Your task to perform on an android device: Look up the best rated hair dryer on Walmart. Image 0: 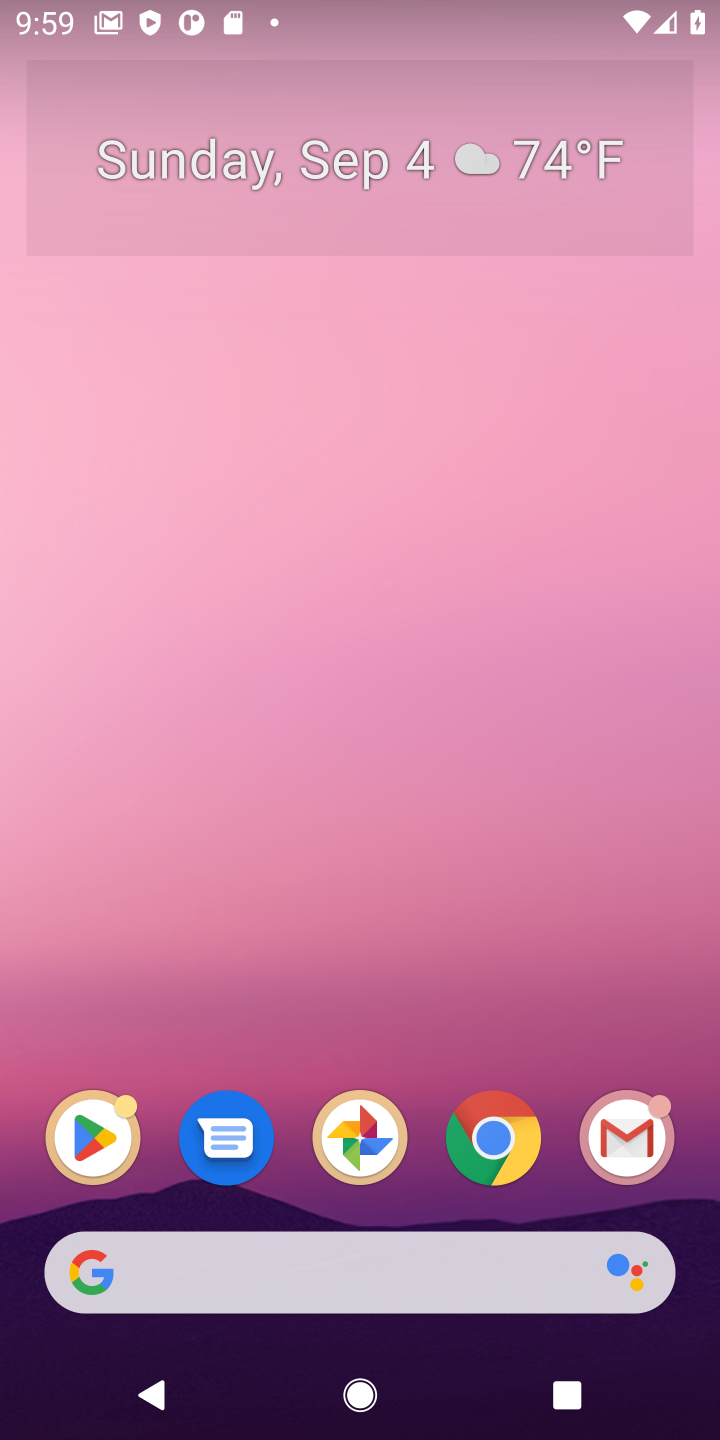
Step 0: click (496, 1155)
Your task to perform on an android device: Look up the best rated hair dryer on Walmart. Image 1: 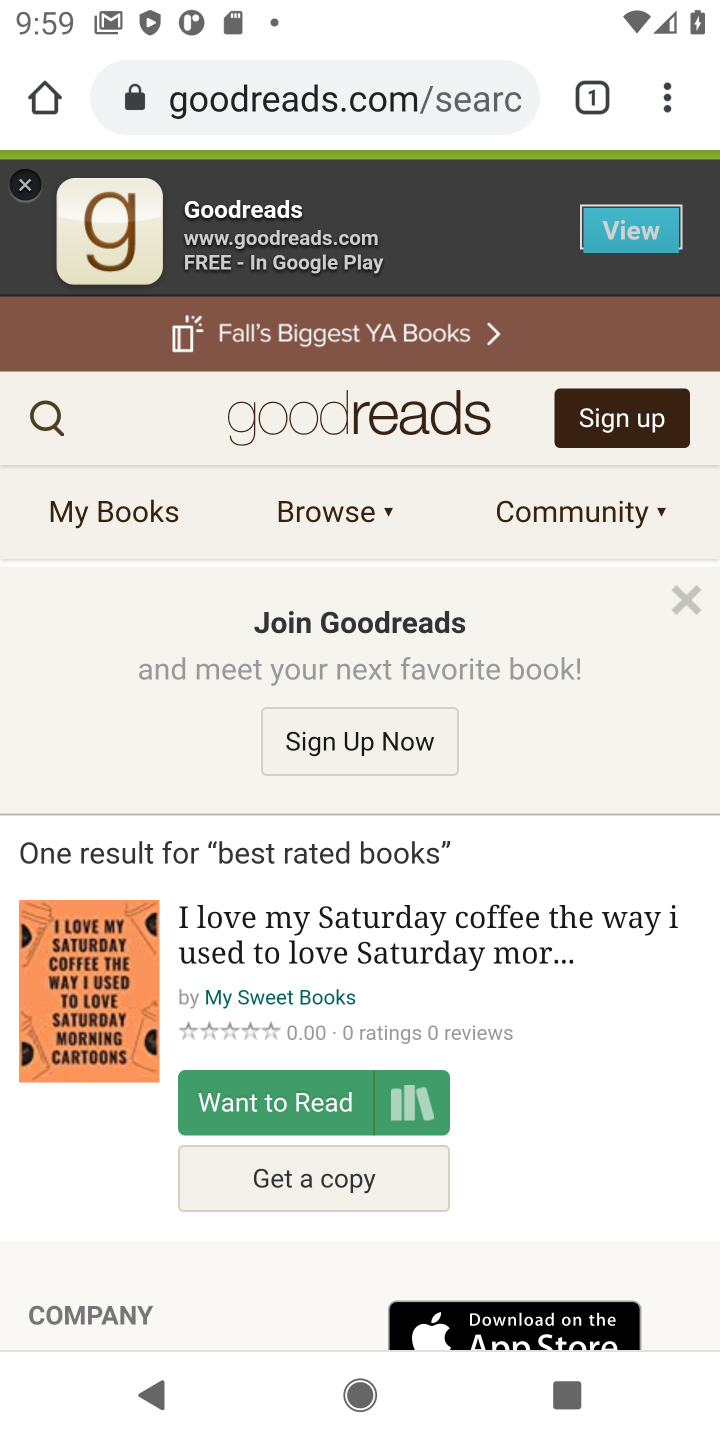
Step 1: click (417, 91)
Your task to perform on an android device: Look up the best rated hair dryer on Walmart. Image 2: 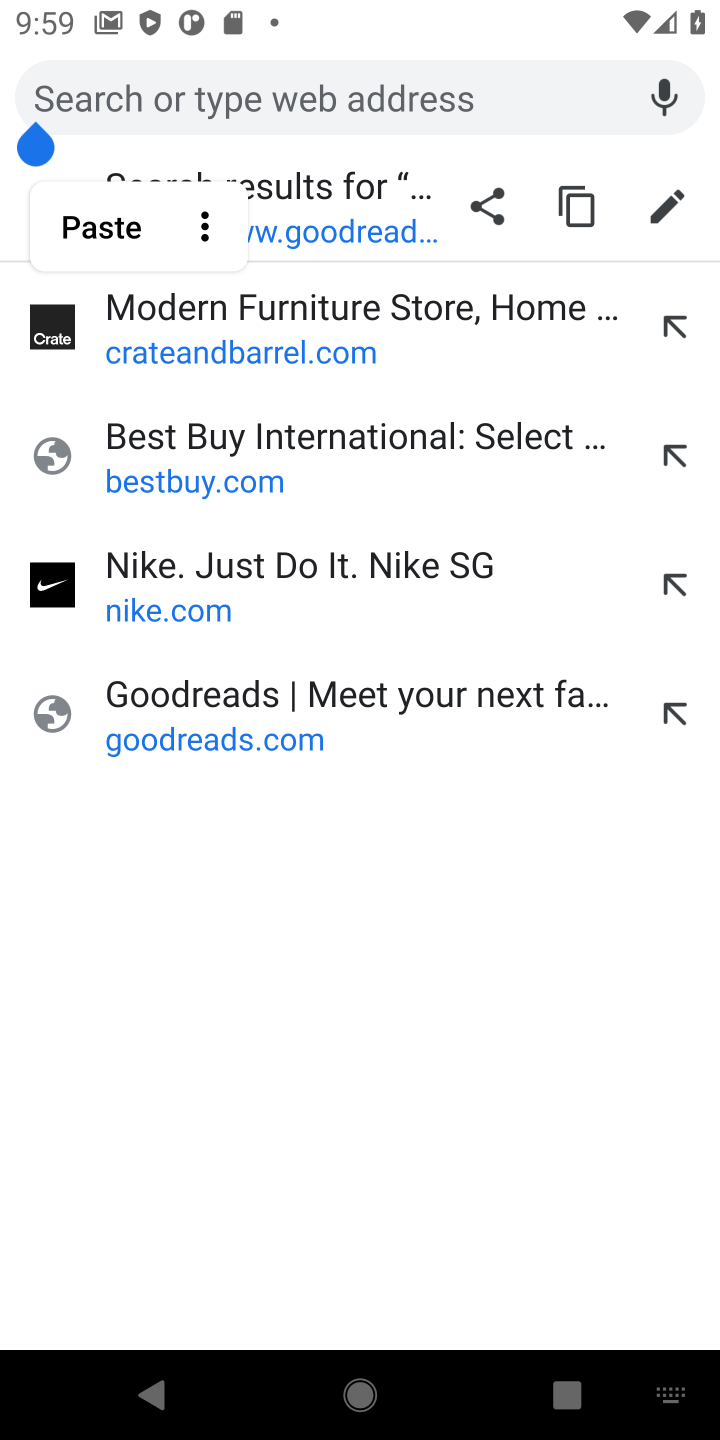
Step 2: type "walmart"
Your task to perform on an android device: Look up the best rated hair dryer on Walmart. Image 3: 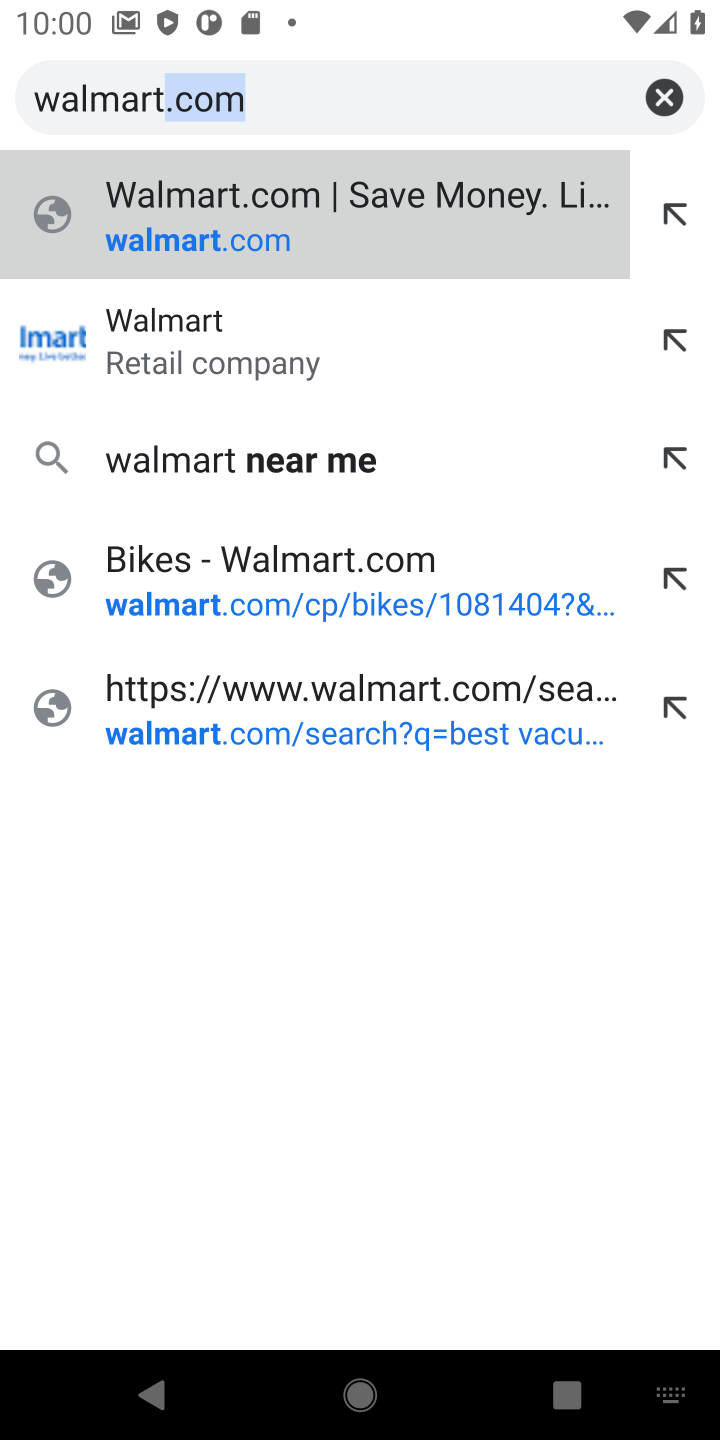
Step 3: click (195, 233)
Your task to perform on an android device: Look up the best rated hair dryer on Walmart. Image 4: 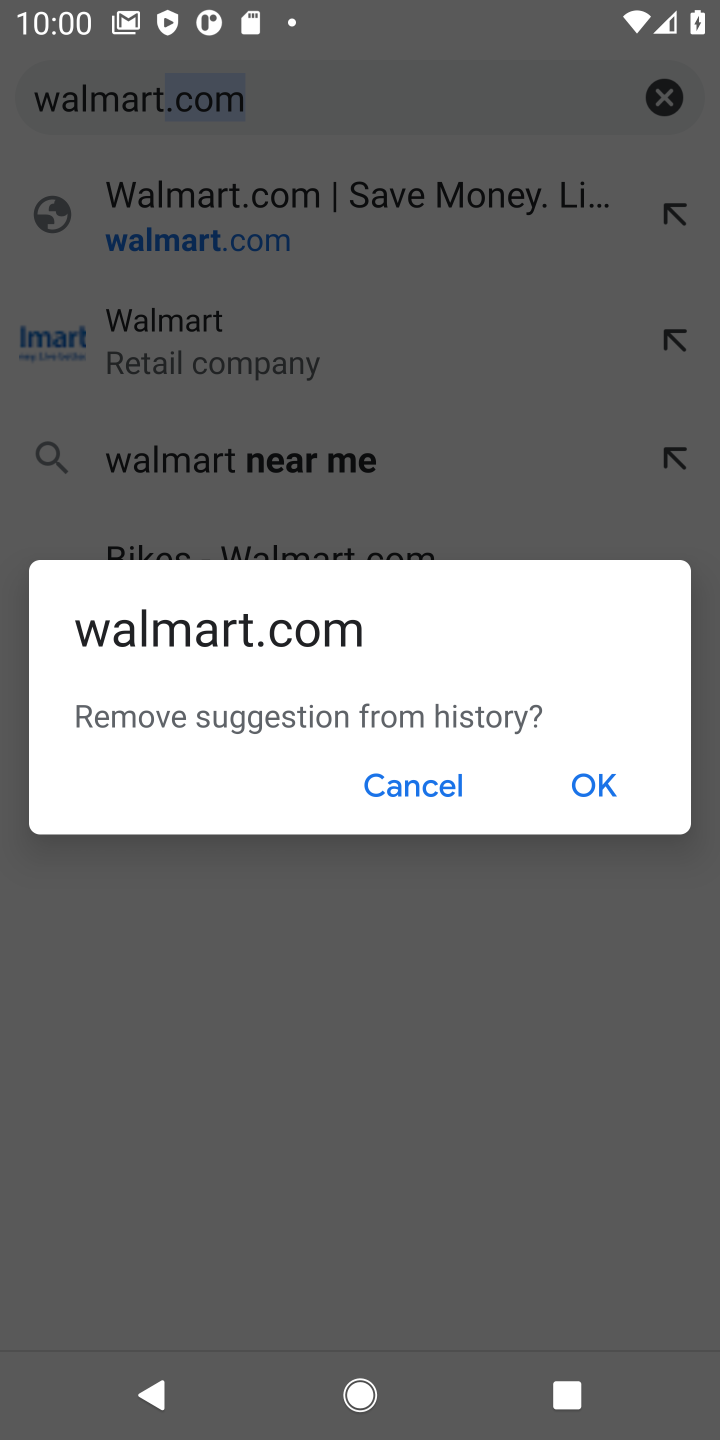
Step 4: click (403, 782)
Your task to perform on an android device: Look up the best rated hair dryer on Walmart. Image 5: 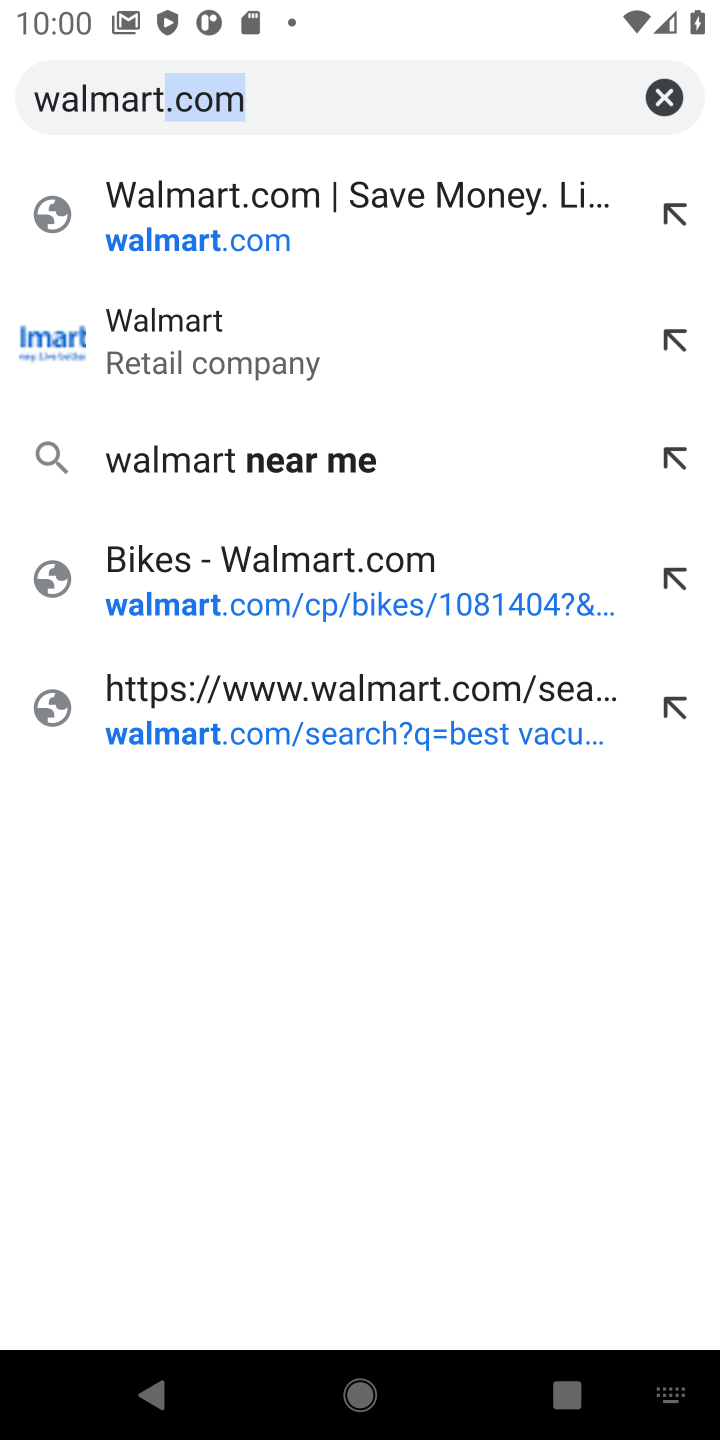
Step 5: click (267, 217)
Your task to perform on an android device: Look up the best rated hair dryer on Walmart. Image 6: 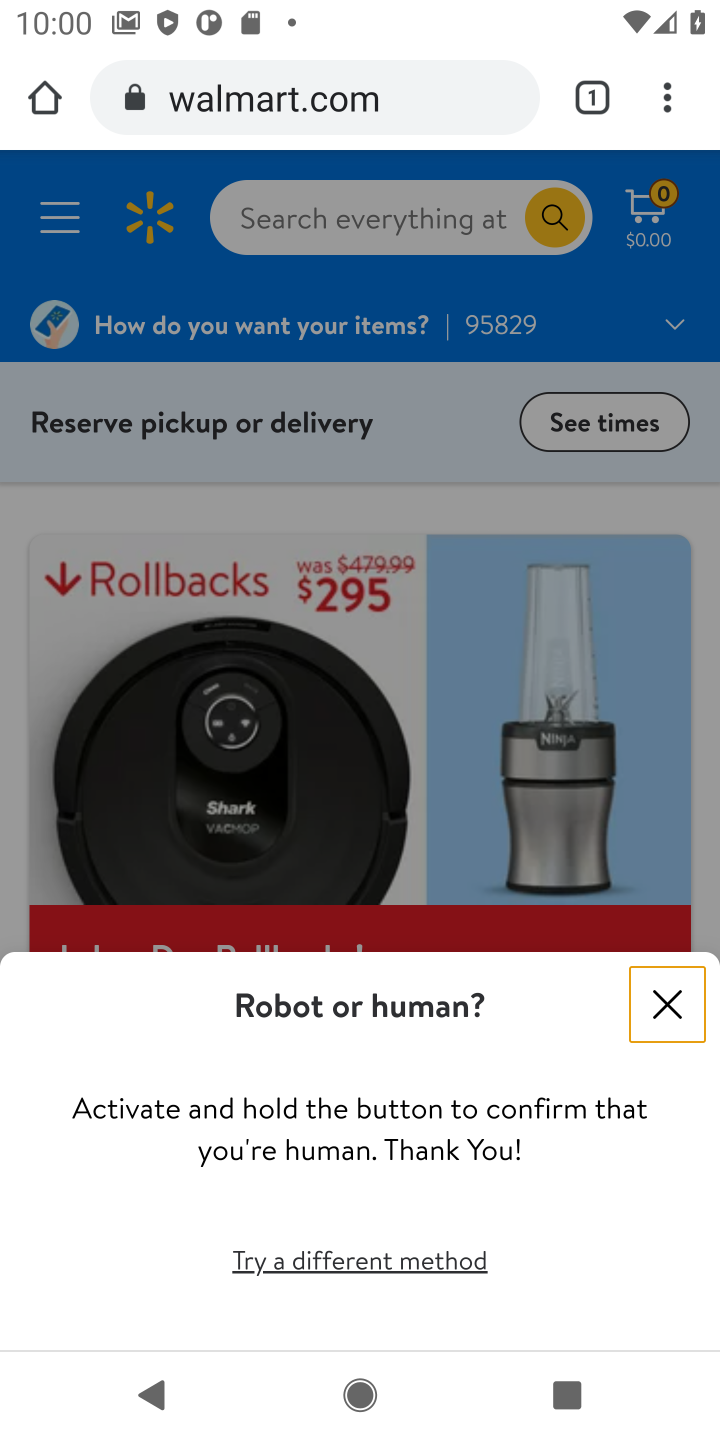
Step 6: click (416, 236)
Your task to perform on an android device: Look up the best rated hair dryer on Walmart. Image 7: 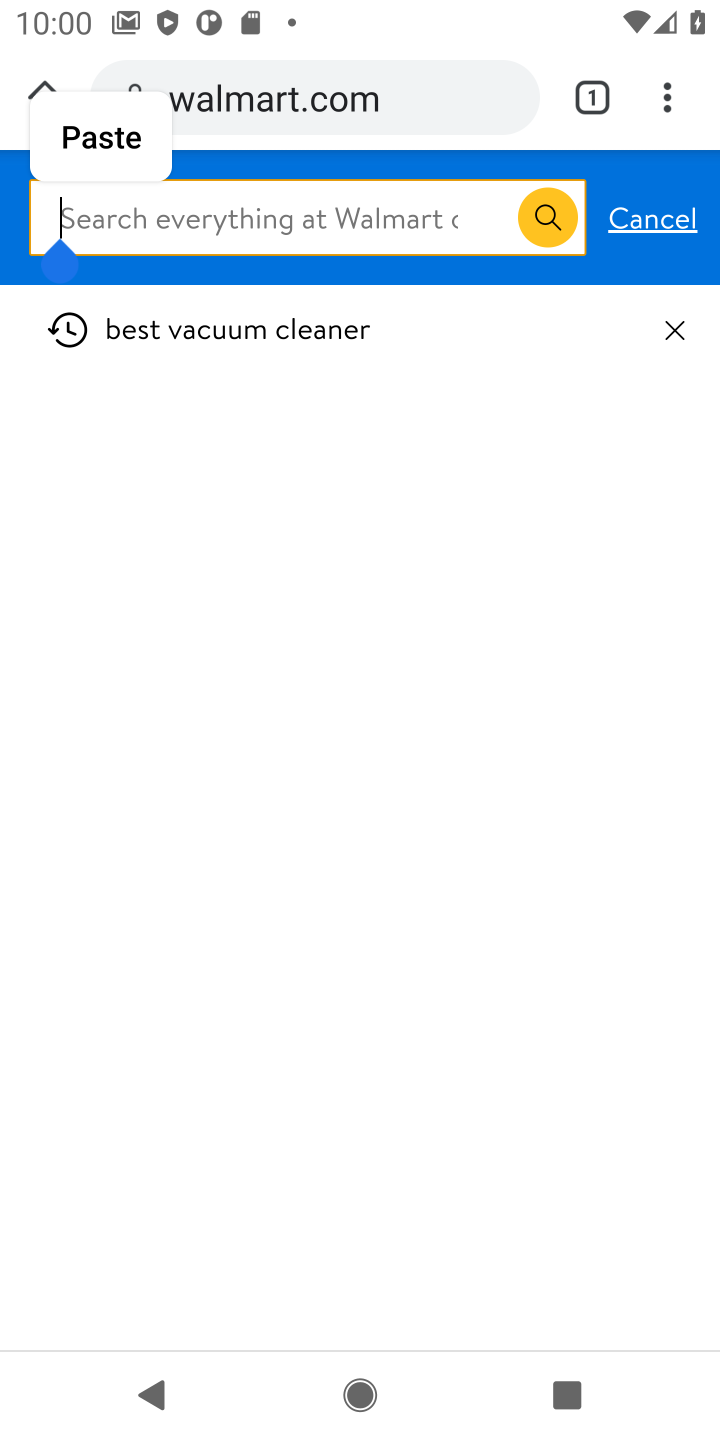
Step 7: type "best rated hair dryer"
Your task to perform on an android device: Look up the best rated hair dryer on Walmart. Image 8: 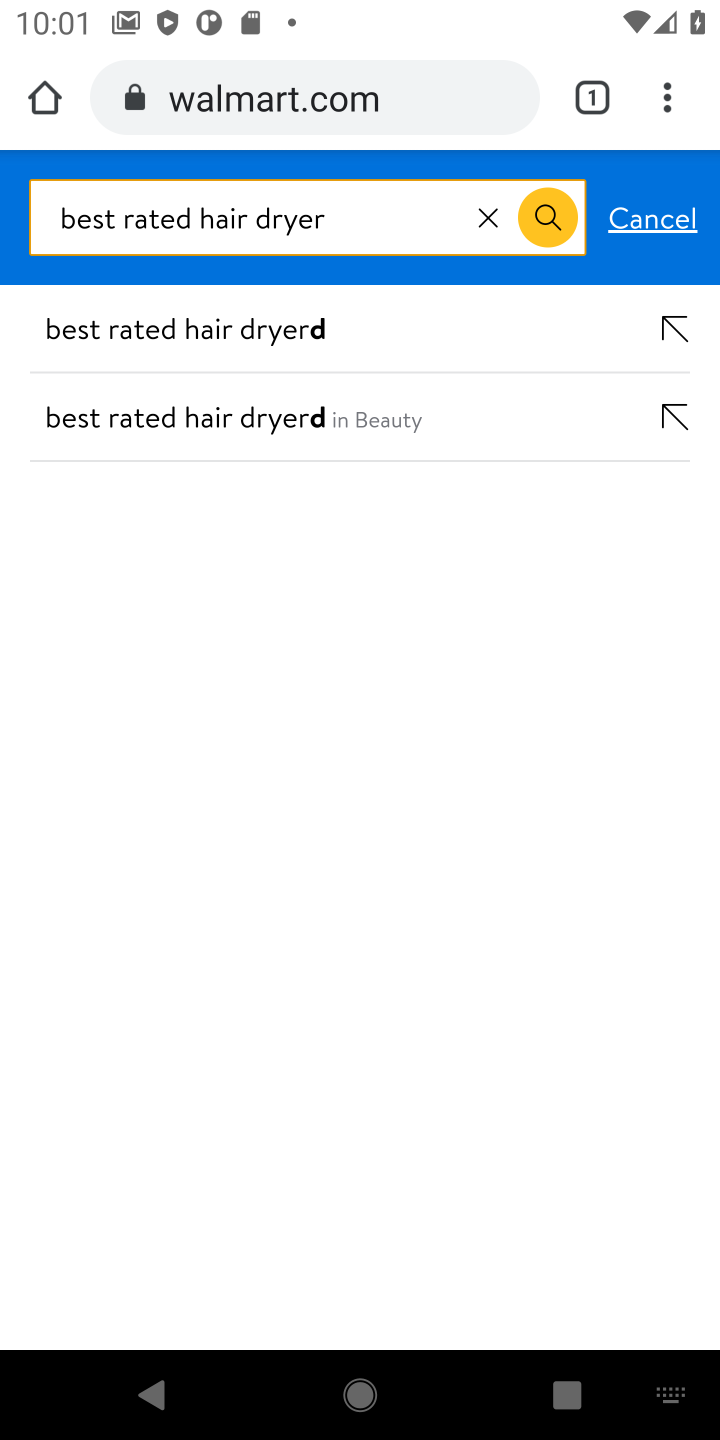
Step 8: press enter
Your task to perform on an android device: Look up the best rated hair dryer on Walmart. Image 9: 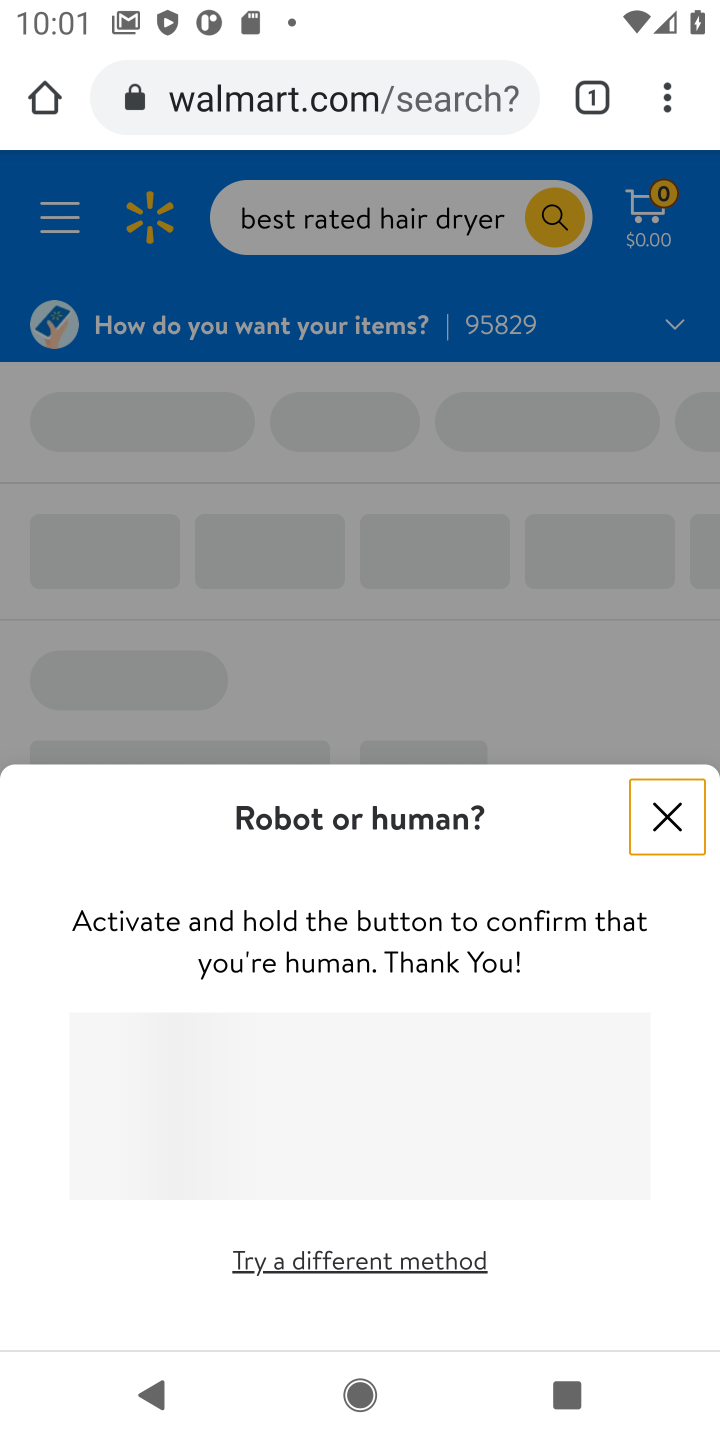
Step 9: task complete